Your task to perform on an android device: Search for usb-c to usb-b on ebay.com, select the first entry, and add it to the cart. Image 0: 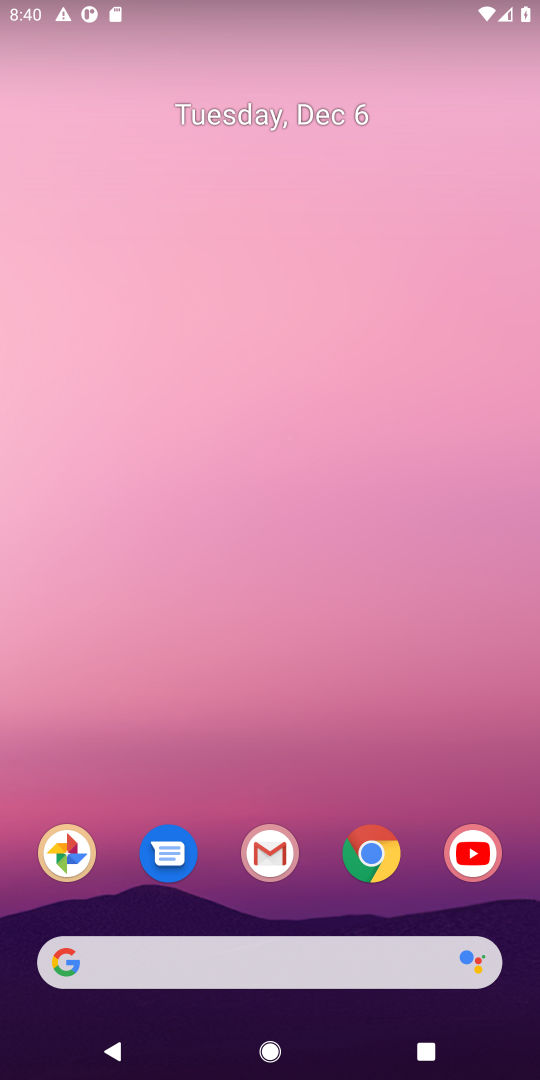
Step 0: press home button
Your task to perform on an android device: Search for usb-c to usb-b on ebay.com, select the first entry, and add it to the cart. Image 1: 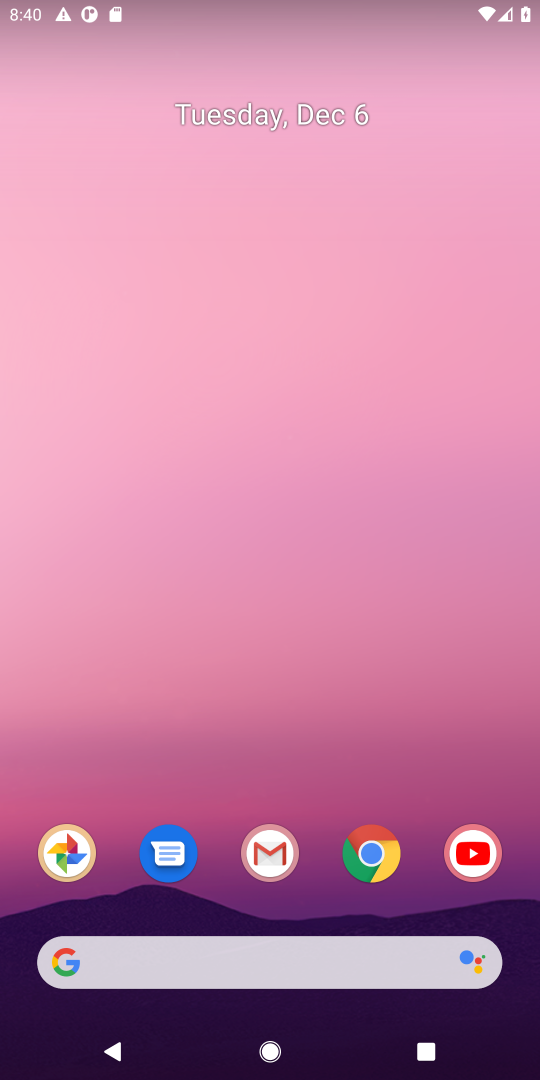
Step 1: drag from (239, 941) to (239, 224)
Your task to perform on an android device: Search for usb-c to usb-b on ebay.com, select the first entry, and add it to the cart. Image 2: 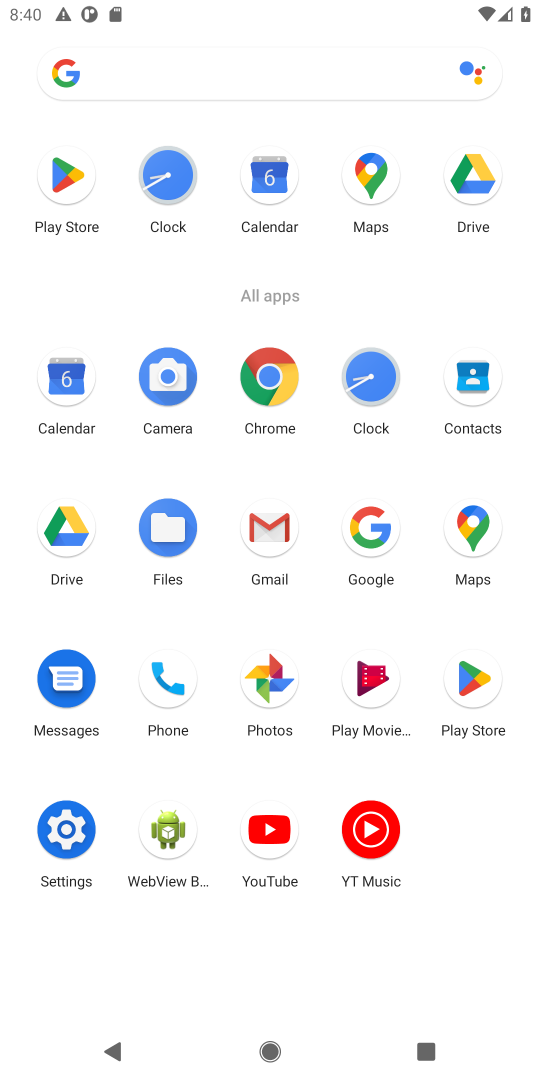
Step 2: click (373, 532)
Your task to perform on an android device: Search for usb-c to usb-b on ebay.com, select the first entry, and add it to the cart. Image 3: 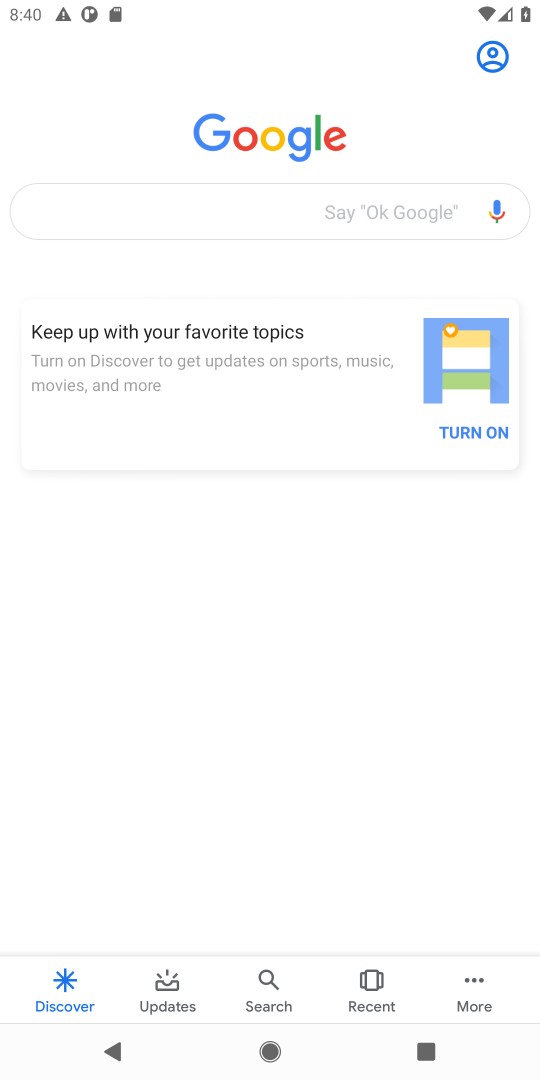
Step 3: click (142, 191)
Your task to perform on an android device: Search for usb-c to usb-b on ebay.com, select the first entry, and add it to the cart. Image 4: 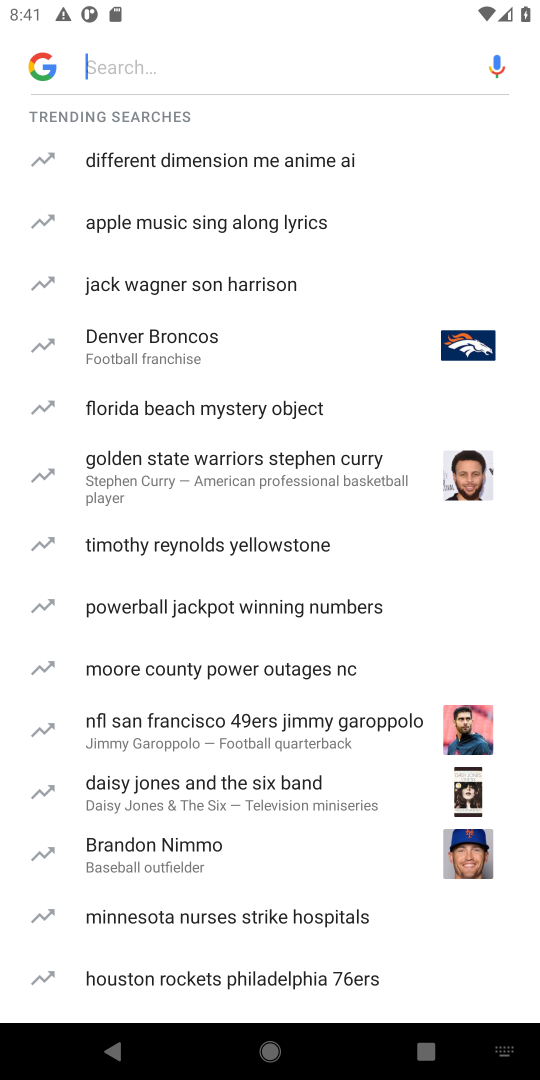
Step 4: type "ebay.com"
Your task to perform on an android device: Search for usb-c to usb-b on ebay.com, select the first entry, and add it to the cart. Image 5: 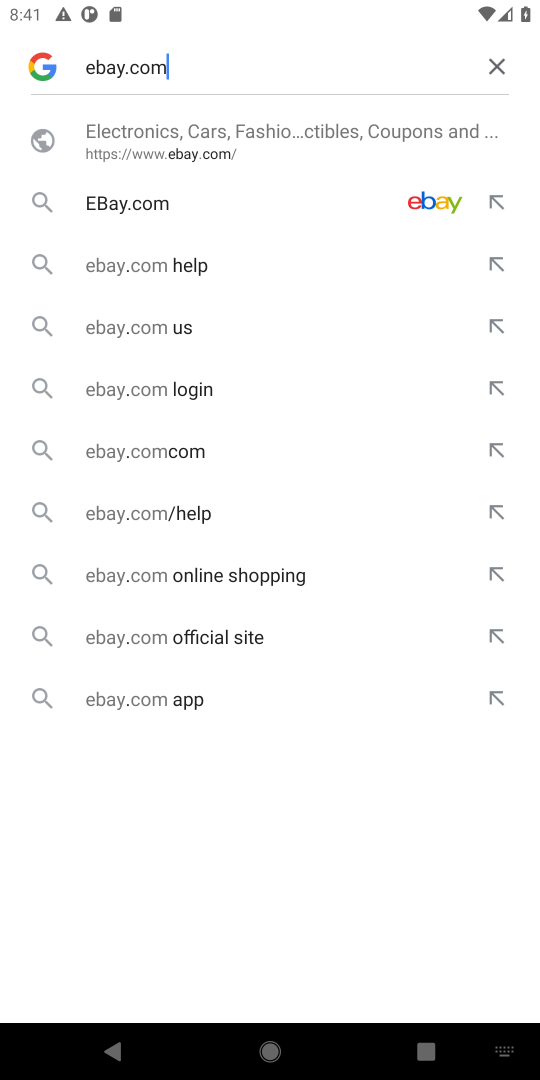
Step 5: click (99, 148)
Your task to perform on an android device: Search for usb-c to usb-b on ebay.com, select the first entry, and add it to the cart. Image 6: 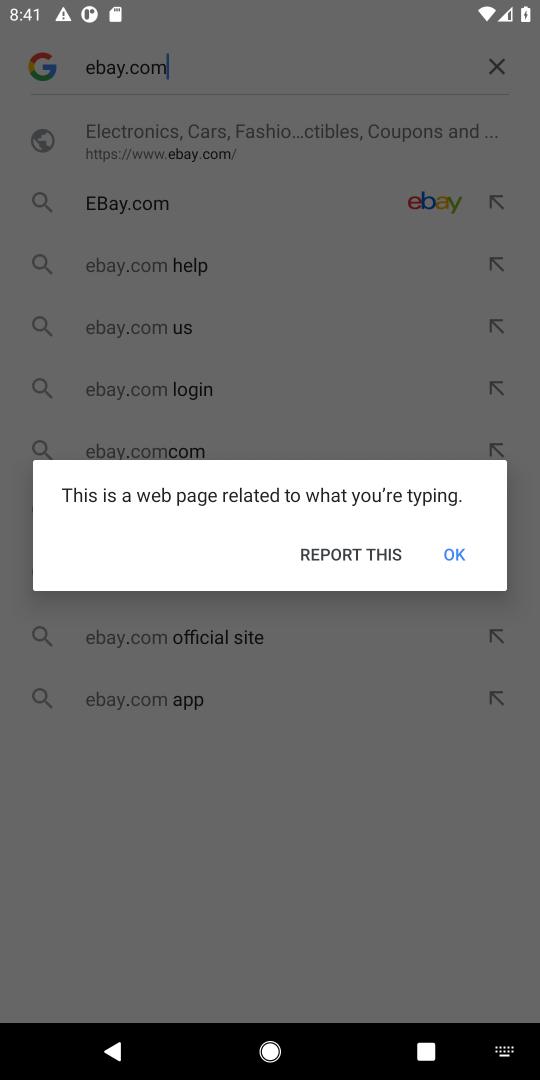
Step 6: click (343, 694)
Your task to perform on an android device: Search for usb-c to usb-b on ebay.com, select the first entry, and add it to the cart. Image 7: 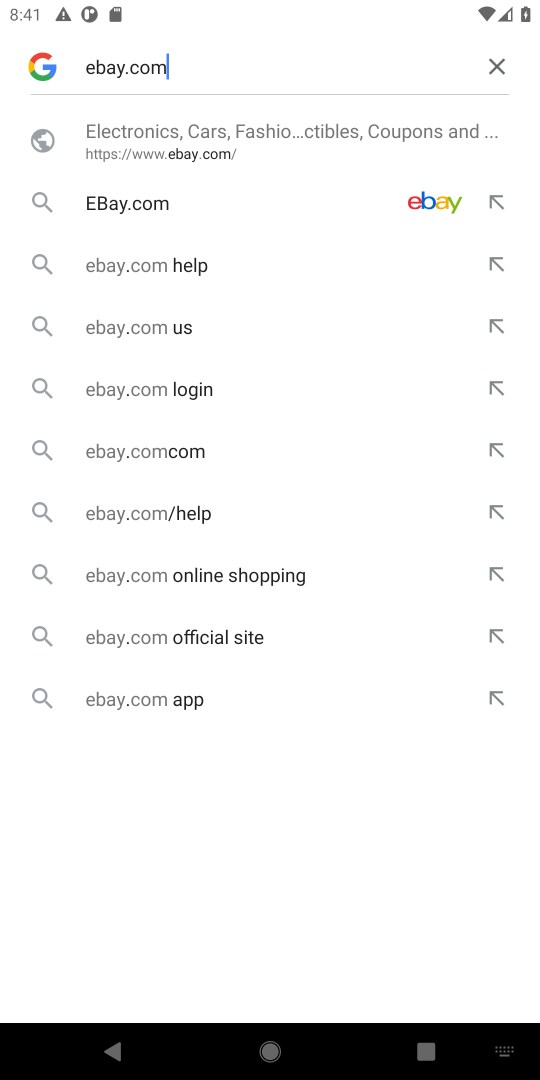
Step 7: click (452, 554)
Your task to perform on an android device: Search for usb-c to usb-b on ebay.com, select the first entry, and add it to the cart. Image 8: 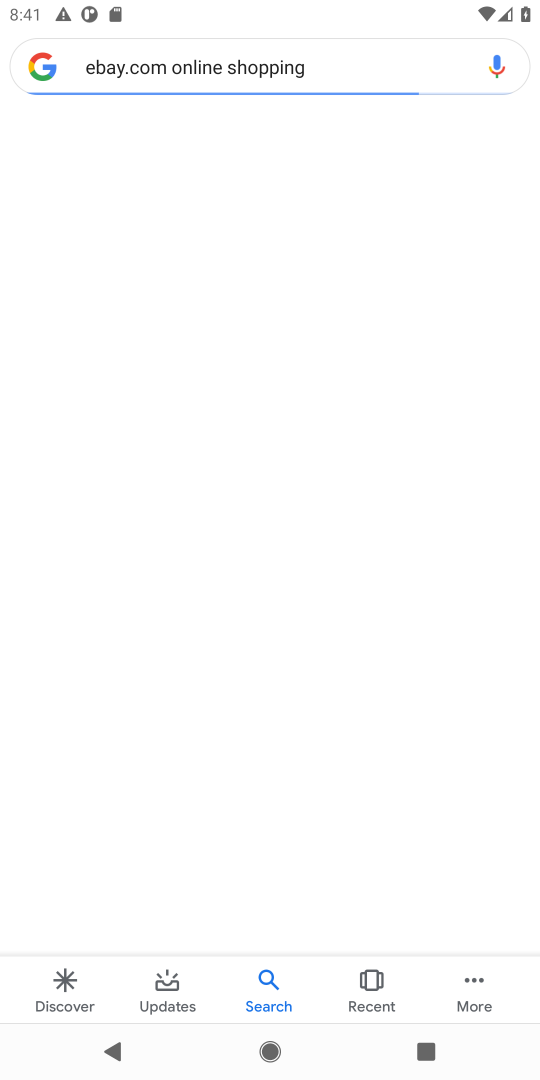
Step 8: click (149, 155)
Your task to perform on an android device: Search for usb-c to usb-b on ebay.com, select the first entry, and add it to the cart. Image 9: 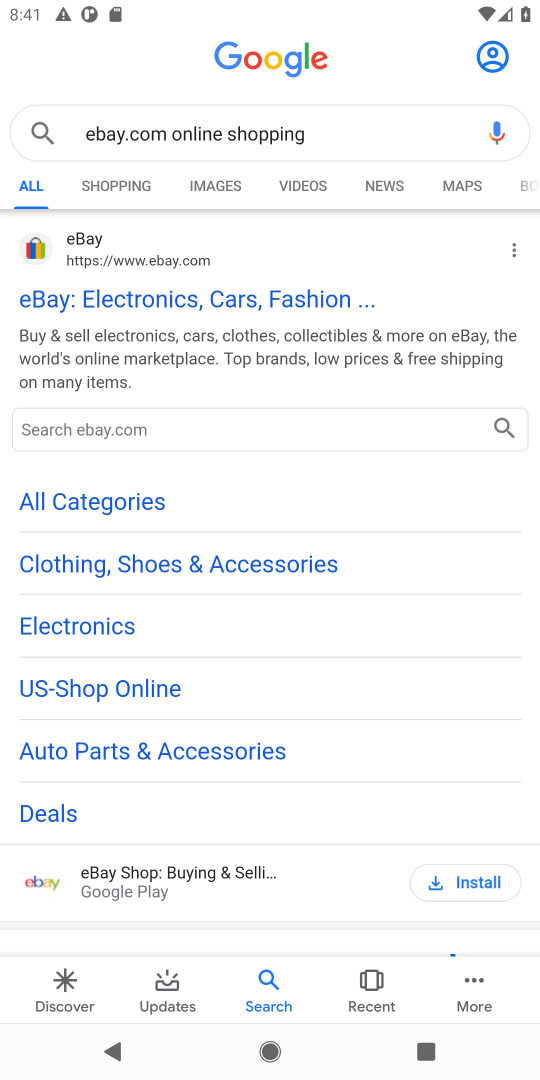
Step 9: click (163, 306)
Your task to perform on an android device: Search for usb-c to usb-b on ebay.com, select the first entry, and add it to the cart. Image 10: 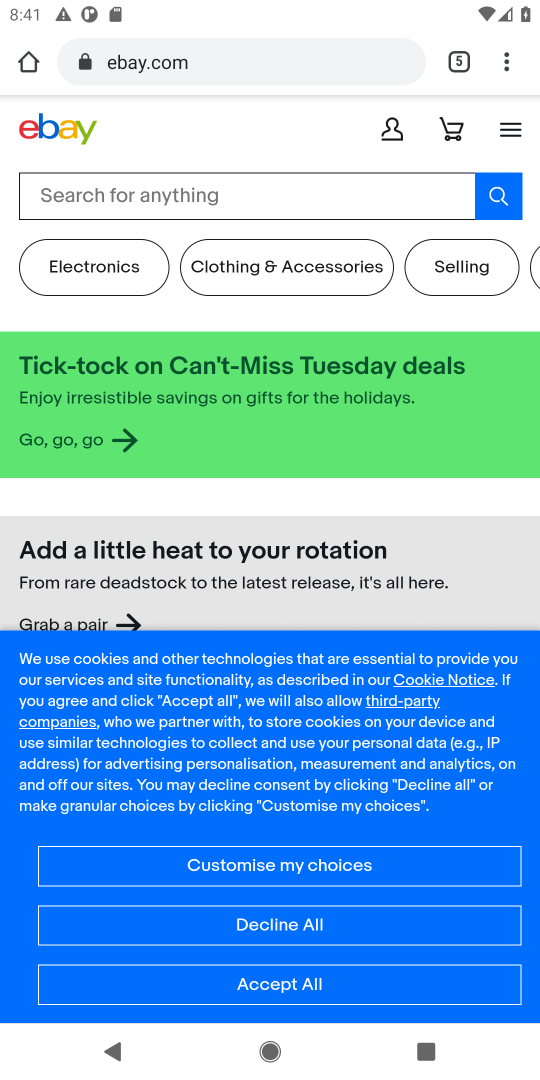
Step 10: click (82, 205)
Your task to perform on an android device: Search for usb-c to usb-b on ebay.com, select the first entry, and add it to the cart. Image 11: 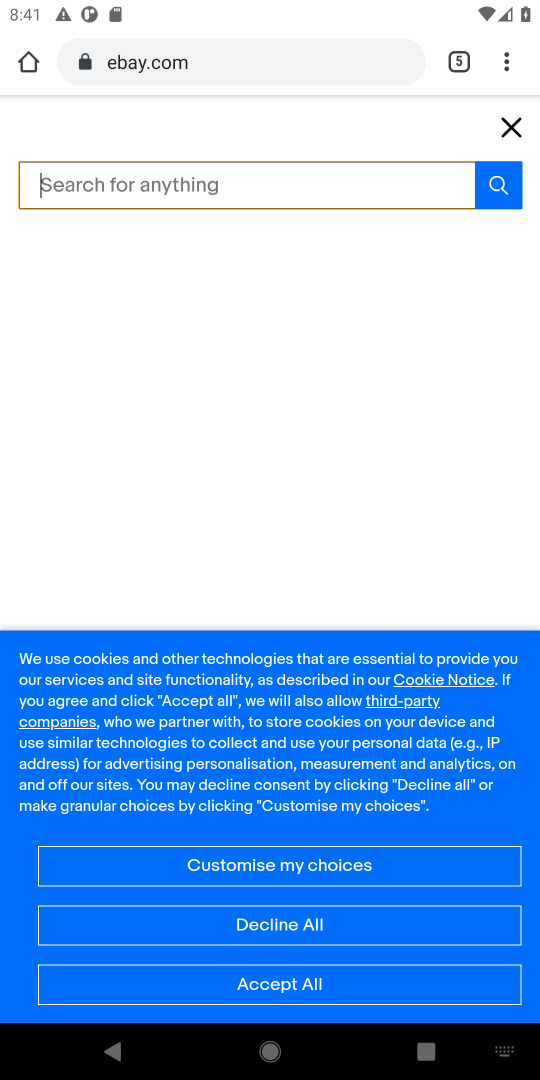
Step 11: type "usb-c to usb-b"
Your task to perform on an android device: Search for usb-c to usb-b on ebay.com, select the first entry, and add it to the cart. Image 12: 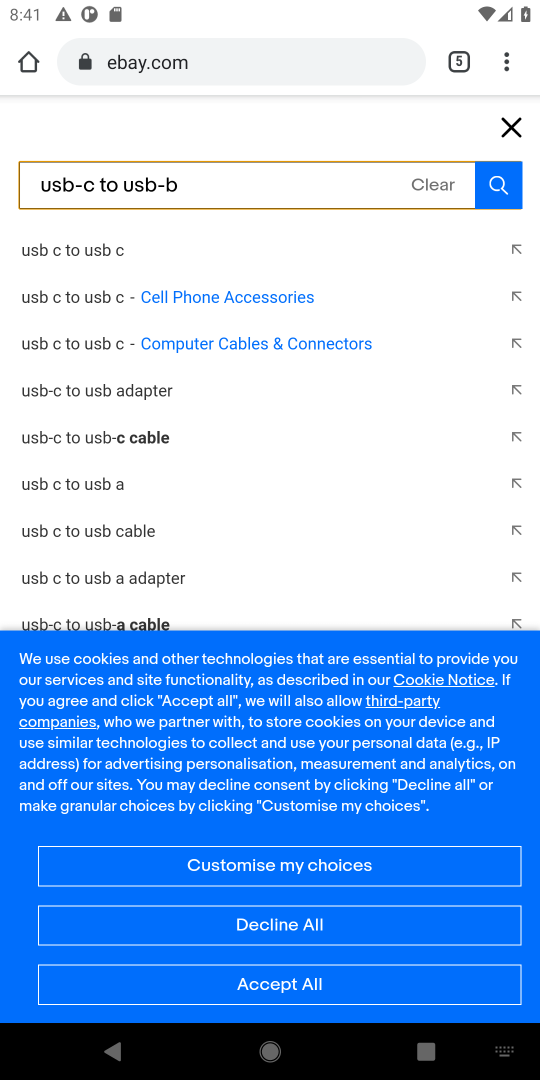
Step 12: click (60, 257)
Your task to perform on an android device: Search for usb-c to usb-b on ebay.com, select the first entry, and add it to the cart. Image 13: 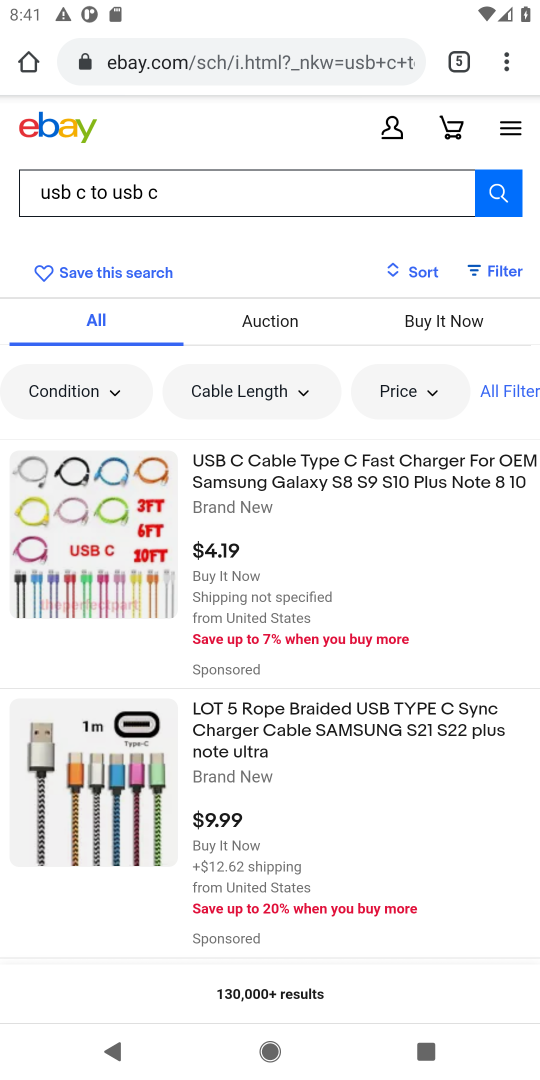
Step 13: click (276, 513)
Your task to perform on an android device: Search for usb-c to usb-b on ebay.com, select the first entry, and add it to the cart. Image 14: 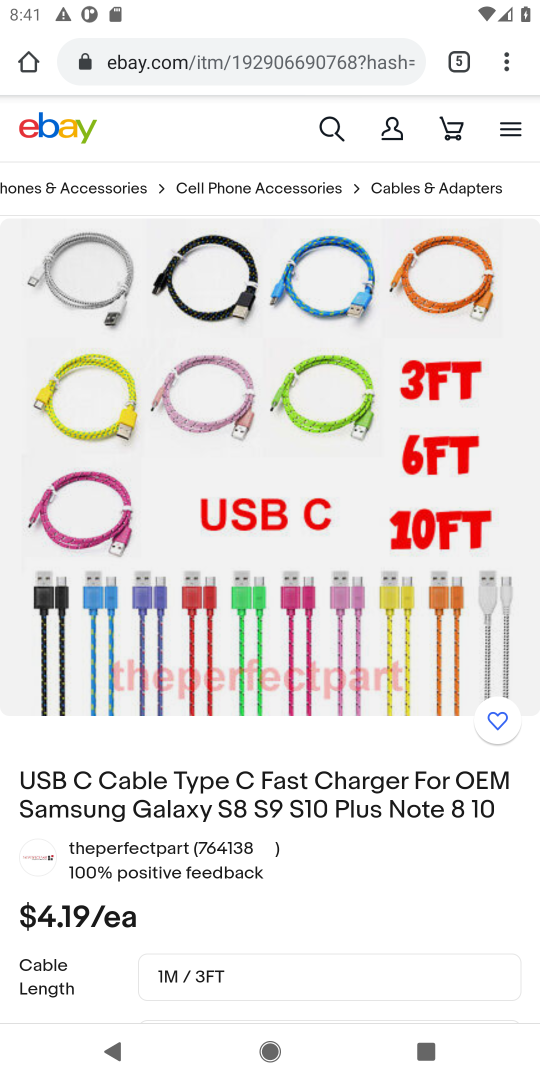
Step 14: drag from (178, 864) to (228, 335)
Your task to perform on an android device: Search for usb-c to usb-b on ebay.com, select the first entry, and add it to the cart. Image 15: 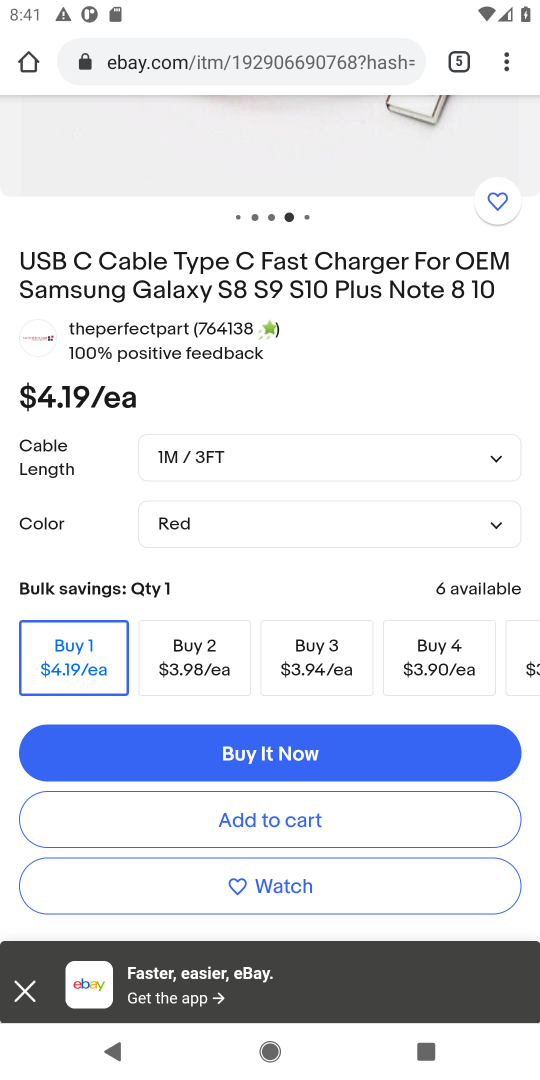
Step 15: click (240, 822)
Your task to perform on an android device: Search for usb-c to usb-b on ebay.com, select the first entry, and add it to the cart. Image 16: 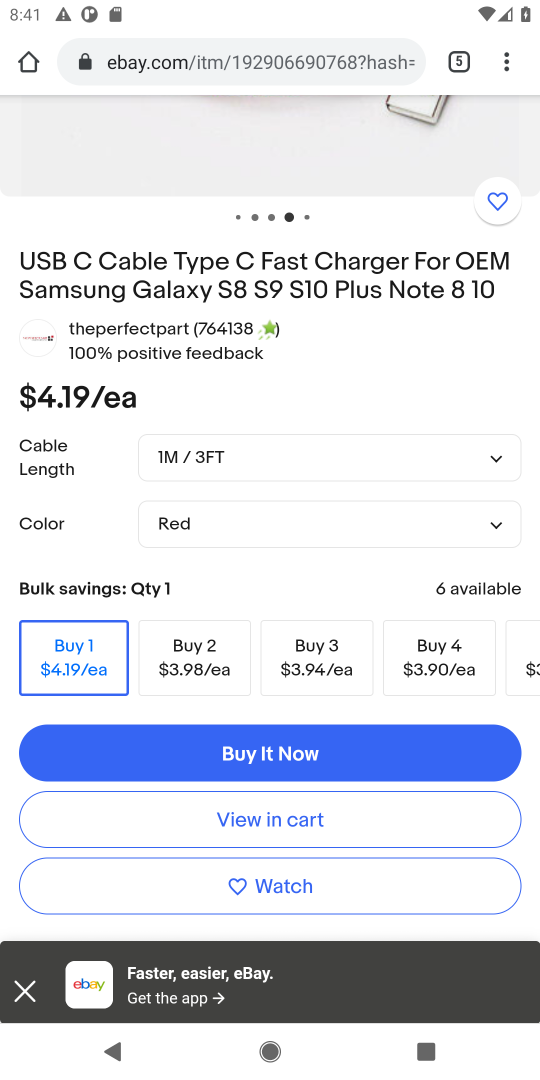
Step 16: click (252, 821)
Your task to perform on an android device: Search for usb-c to usb-b on ebay.com, select the first entry, and add it to the cart. Image 17: 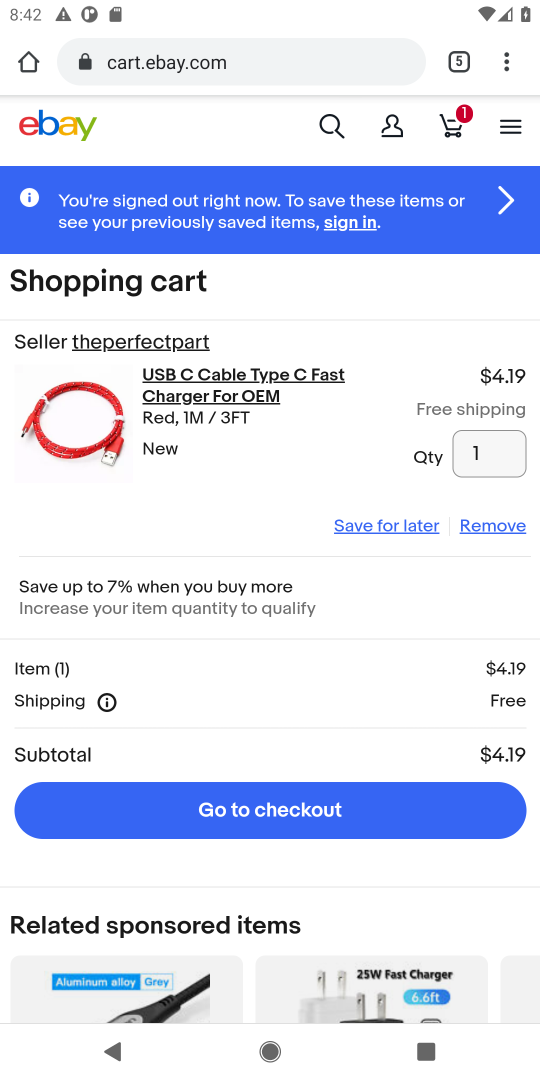
Step 17: task complete